Your task to perform on an android device: check the backup settings in the google photos Image 0: 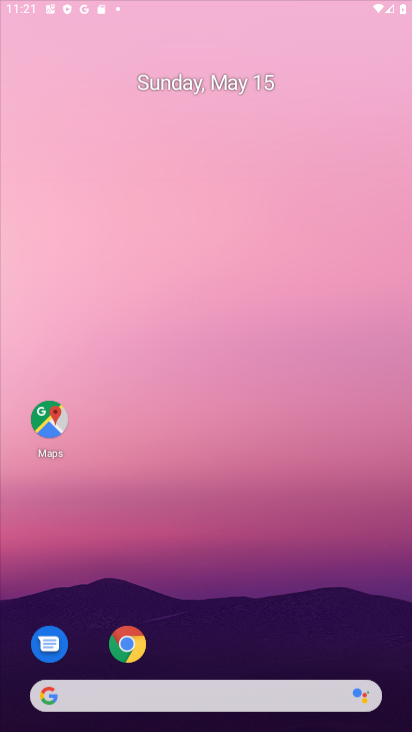
Step 0: click (265, 430)
Your task to perform on an android device: check the backup settings in the google photos Image 1: 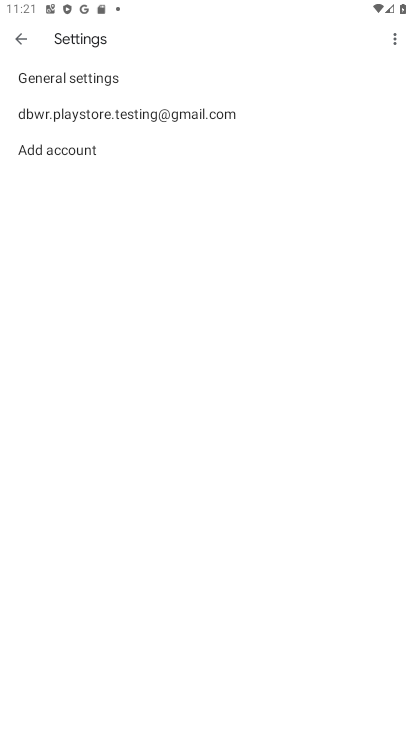
Step 1: click (105, 115)
Your task to perform on an android device: check the backup settings in the google photos Image 2: 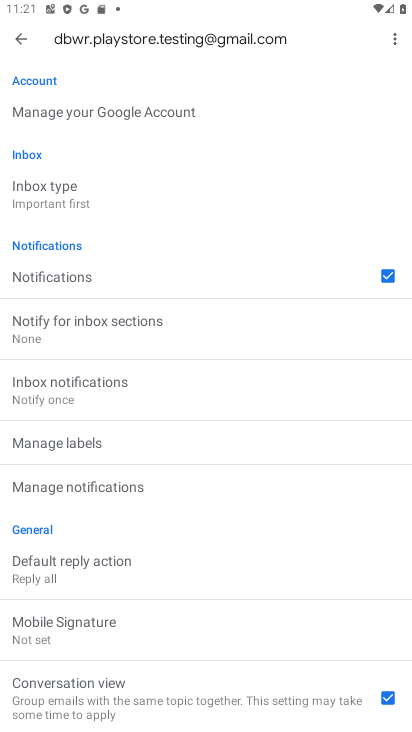
Step 2: press back button
Your task to perform on an android device: check the backup settings in the google photos Image 3: 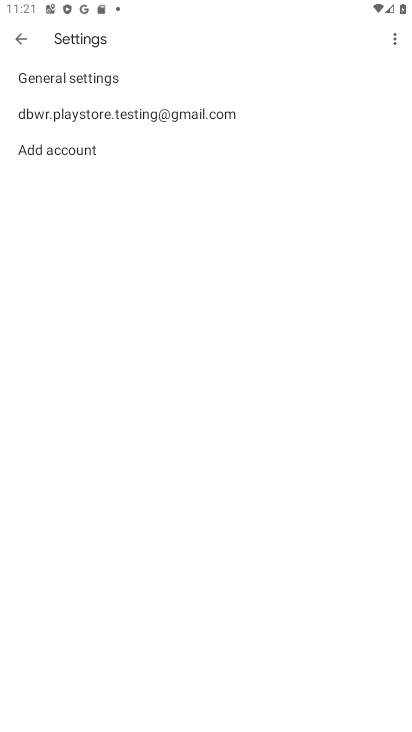
Step 3: press back button
Your task to perform on an android device: check the backup settings in the google photos Image 4: 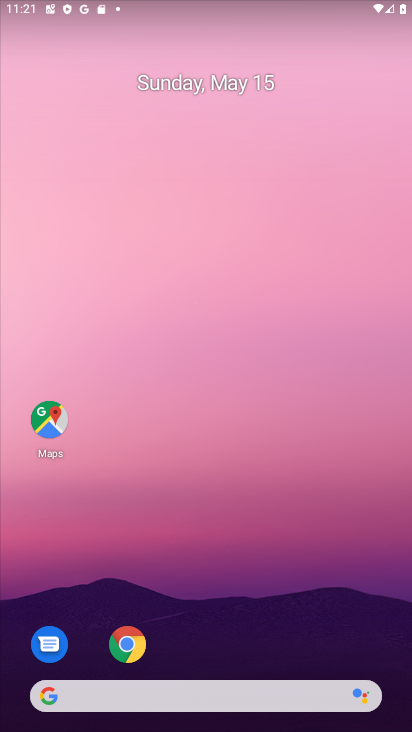
Step 4: drag from (188, 560) to (250, 173)
Your task to perform on an android device: check the backup settings in the google photos Image 5: 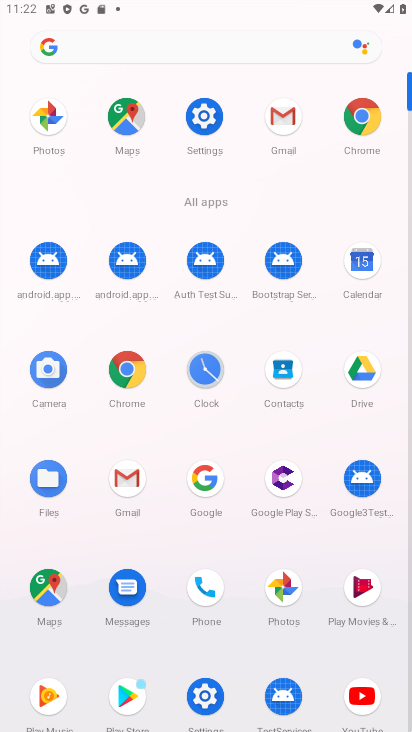
Step 5: click (270, 586)
Your task to perform on an android device: check the backup settings in the google photos Image 6: 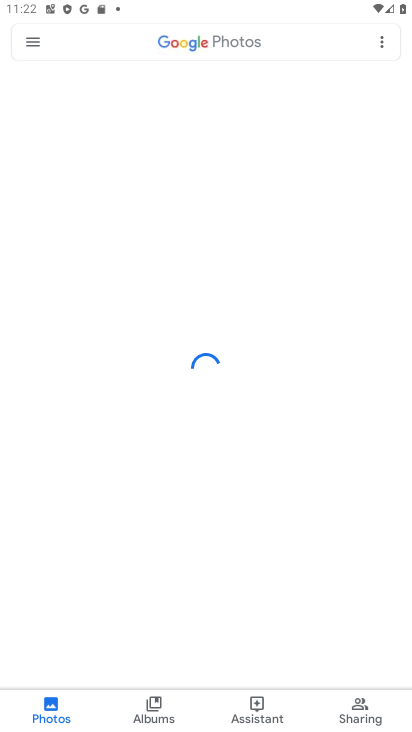
Step 6: click (32, 46)
Your task to perform on an android device: check the backup settings in the google photos Image 7: 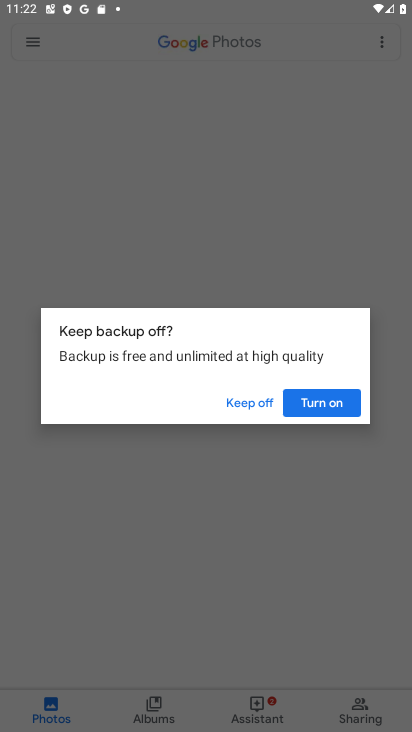
Step 7: click (320, 401)
Your task to perform on an android device: check the backup settings in the google photos Image 8: 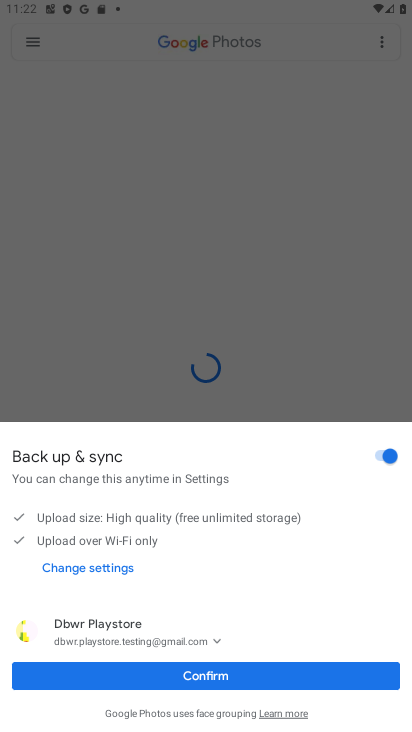
Step 8: click (186, 687)
Your task to perform on an android device: check the backup settings in the google photos Image 9: 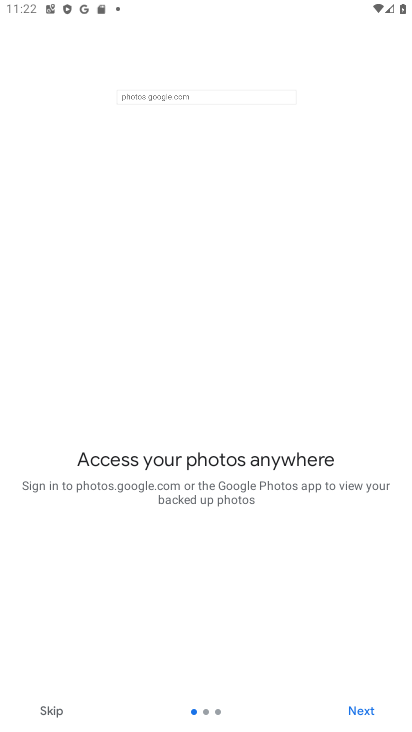
Step 9: click (351, 709)
Your task to perform on an android device: check the backup settings in the google photos Image 10: 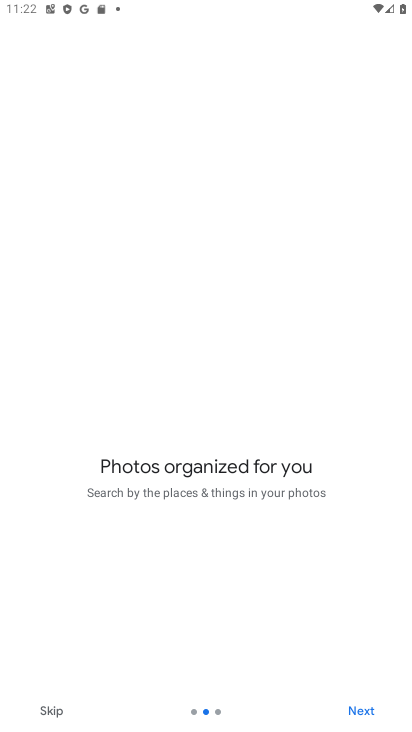
Step 10: click (355, 721)
Your task to perform on an android device: check the backup settings in the google photos Image 11: 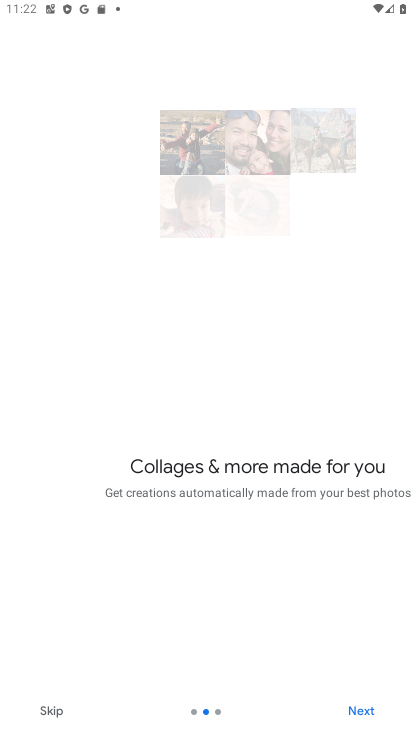
Step 11: click (352, 706)
Your task to perform on an android device: check the backup settings in the google photos Image 12: 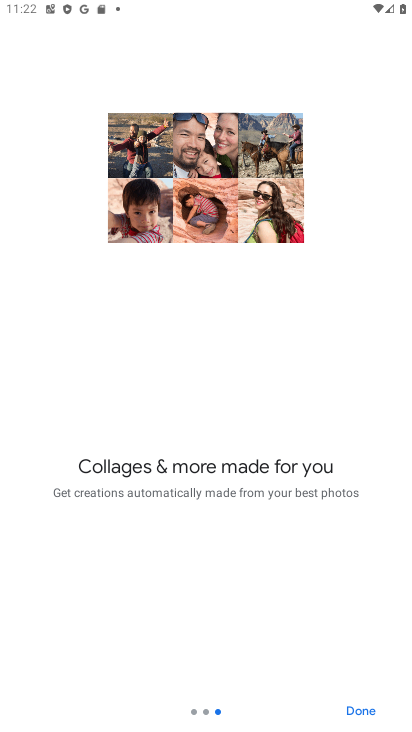
Step 12: click (363, 706)
Your task to perform on an android device: check the backup settings in the google photos Image 13: 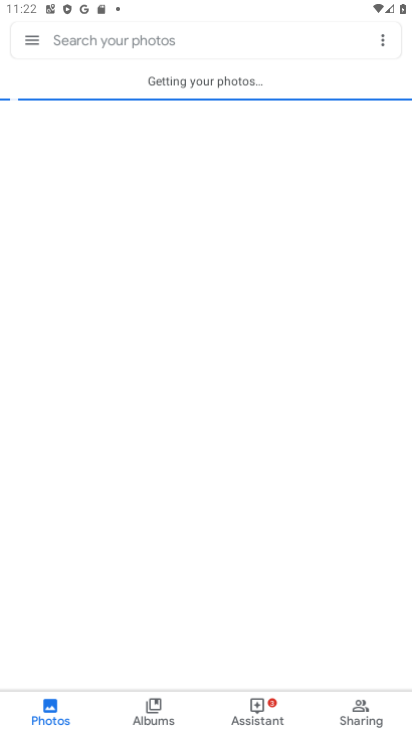
Step 13: click (363, 706)
Your task to perform on an android device: check the backup settings in the google photos Image 14: 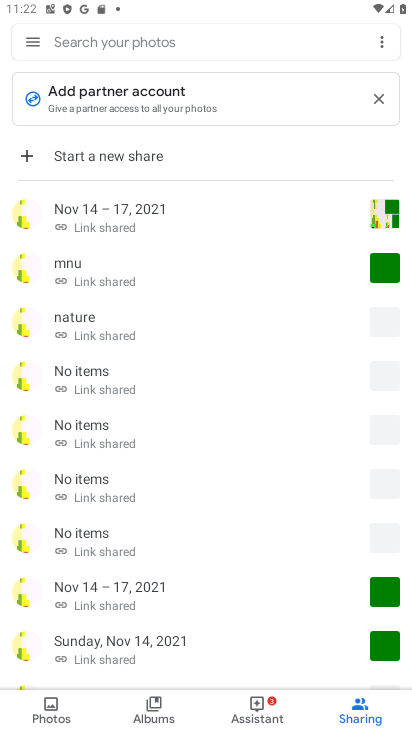
Step 14: click (41, 48)
Your task to perform on an android device: check the backup settings in the google photos Image 15: 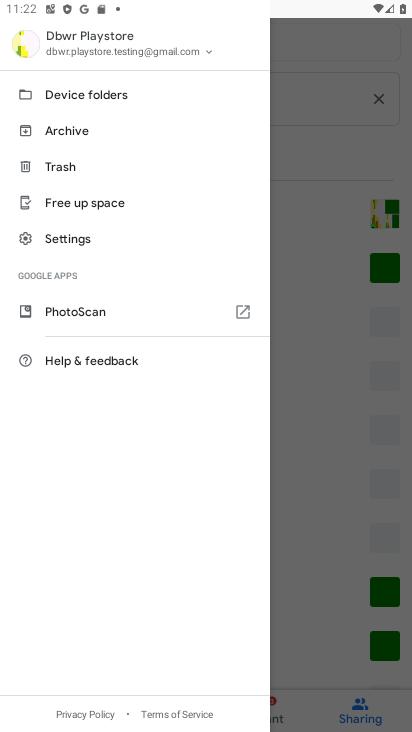
Step 15: click (44, 242)
Your task to perform on an android device: check the backup settings in the google photos Image 16: 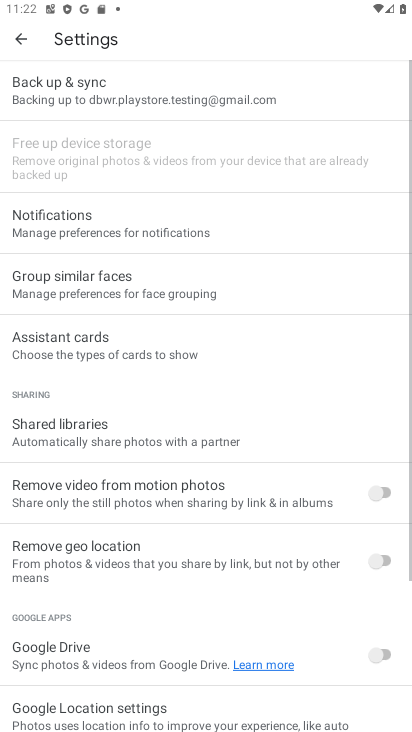
Step 16: click (111, 84)
Your task to perform on an android device: check the backup settings in the google photos Image 17: 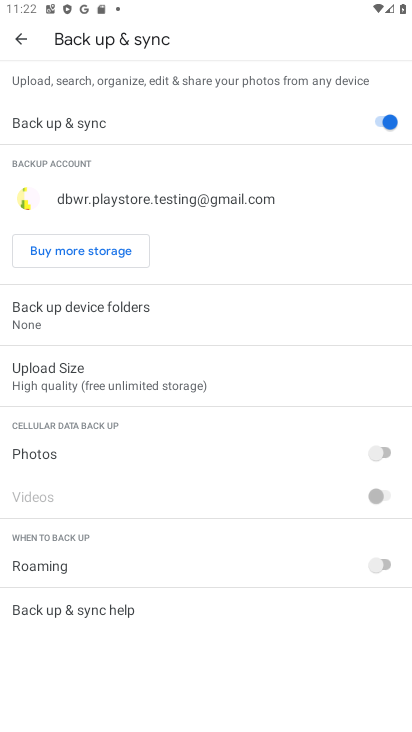
Step 17: drag from (130, 452) to (203, 119)
Your task to perform on an android device: check the backup settings in the google photos Image 18: 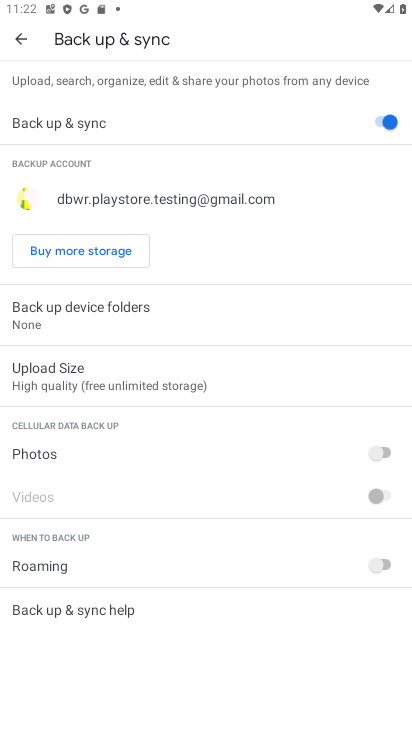
Step 18: click (90, 362)
Your task to perform on an android device: check the backup settings in the google photos Image 19: 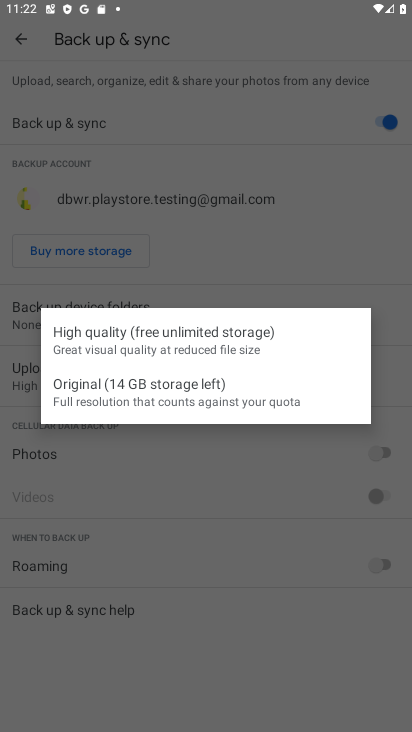
Step 19: click (194, 402)
Your task to perform on an android device: check the backup settings in the google photos Image 20: 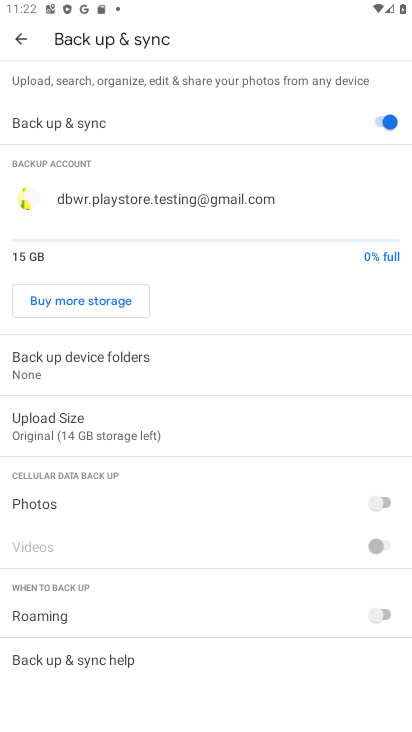
Step 20: task complete